Your task to perform on an android device: Search for hotels in Miami Image 0: 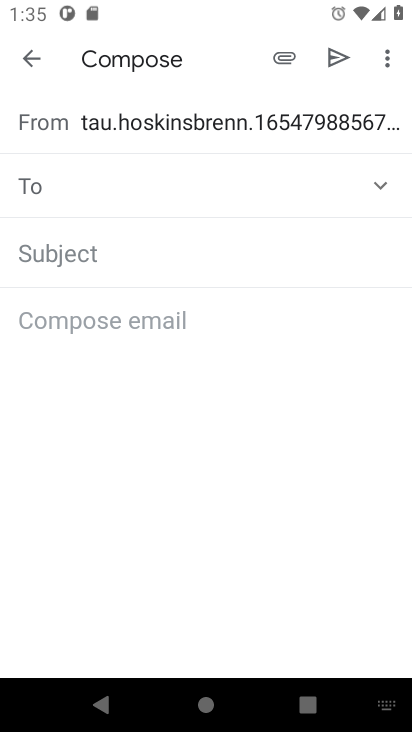
Step 0: press home button
Your task to perform on an android device: Search for hotels in Miami Image 1: 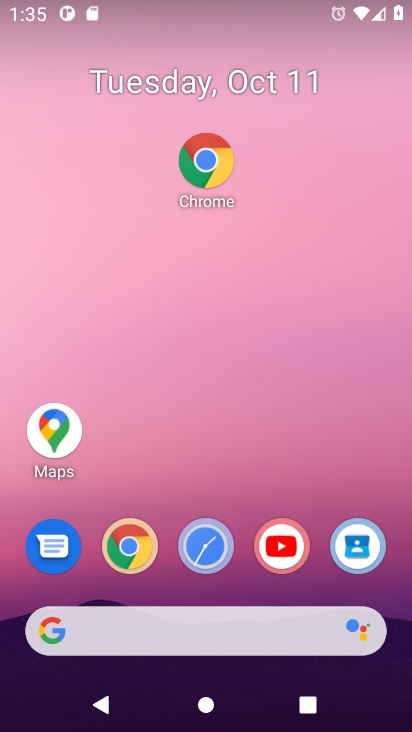
Step 1: click (129, 548)
Your task to perform on an android device: Search for hotels in Miami Image 2: 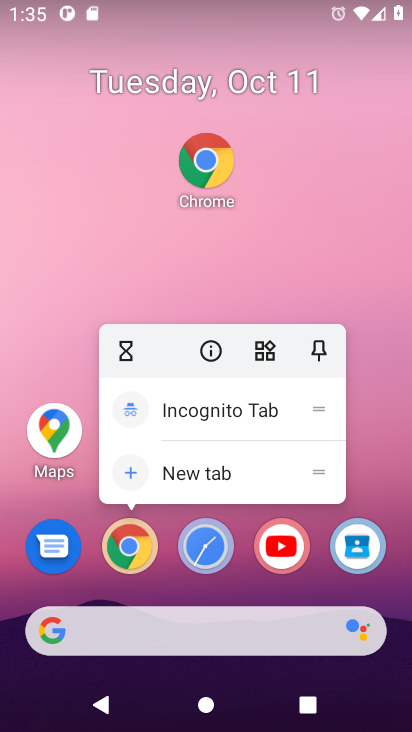
Step 2: click (122, 555)
Your task to perform on an android device: Search for hotels in Miami Image 3: 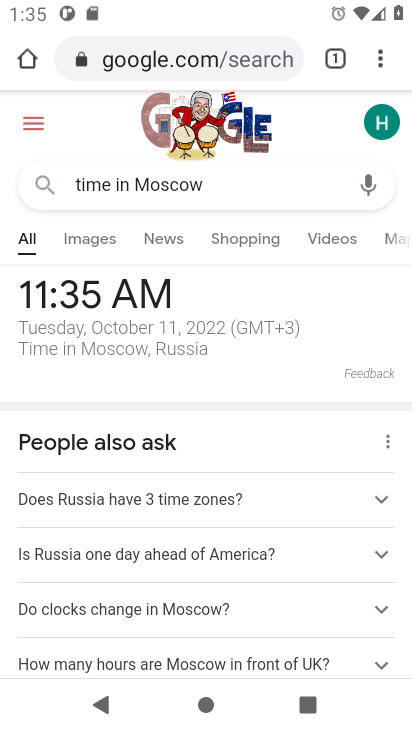
Step 3: click (190, 56)
Your task to perform on an android device: Search for hotels in Miami Image 4: 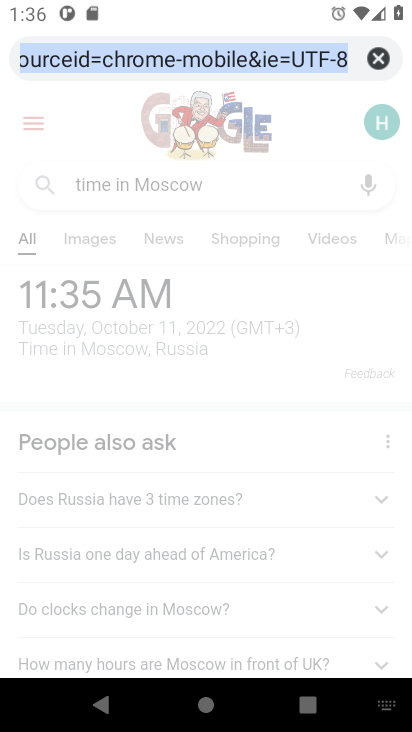
Step 4: type "hotels in Miami"
Your task to perform on an android device: Search for hotels in Miami Image 5: 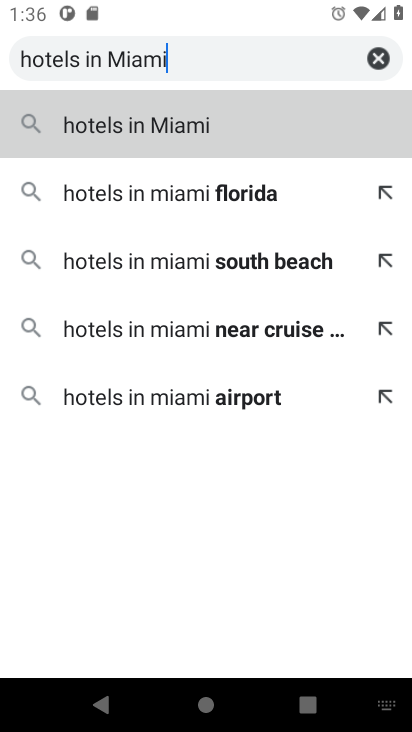
Step 5: press enter
Your task to perform on an android device: Search for hotels in Miami Image 6: 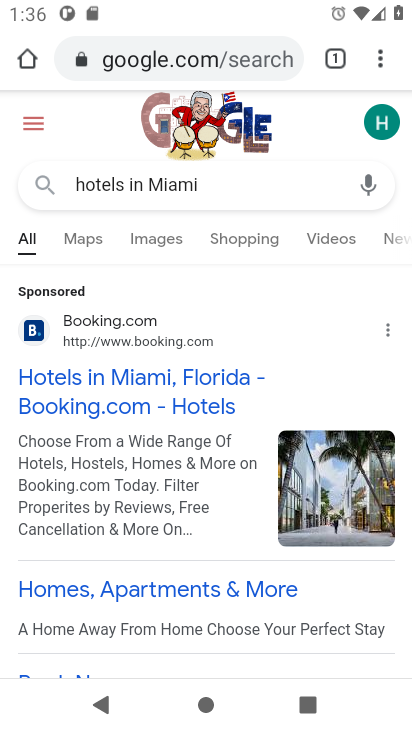
Step 6: click (143, 389)
Your task to perform on an android device: Search for hotels in Miami Image 7: 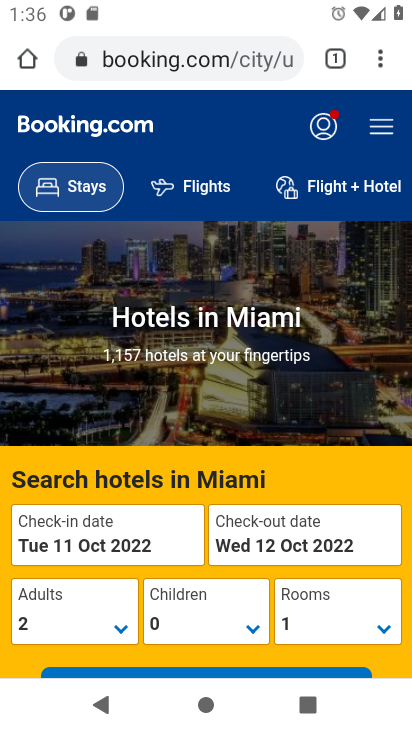
Step 7: task complete